Your task to perform on an android device: turn pop-ups off in chrome Image 0: 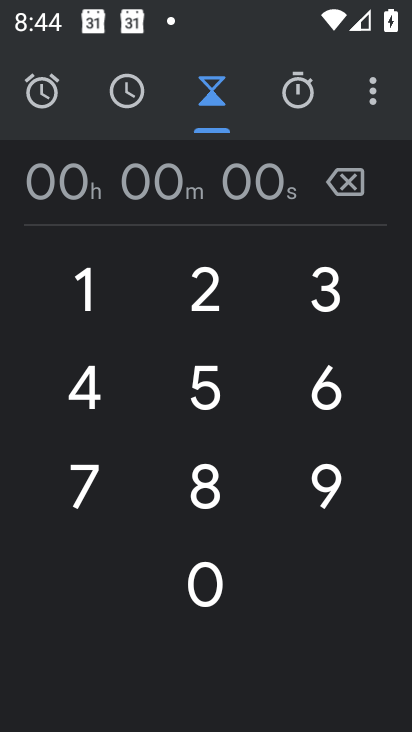
Step 0: press home button
Your task to perform on an android device: turn pop-ups off in chrome Image 1: 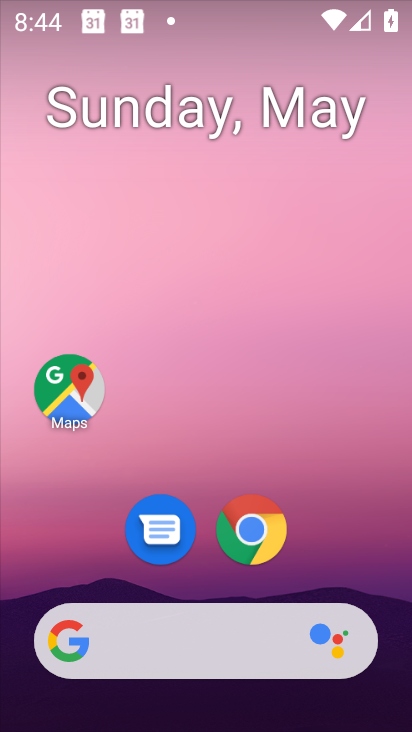
Step 1: click (276, 535)
Your task to perform on an android device: turn pop-ups off in chrome Image 2: 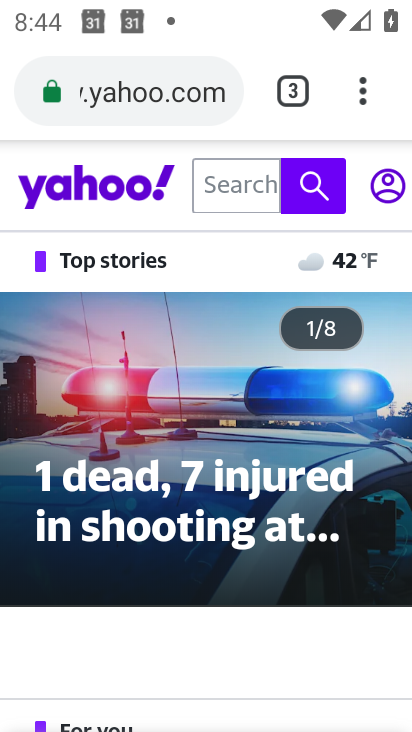
Step 2: click (360, 93)
Your task to perform on an android device: turn pop-ups off in chrome Image 3: 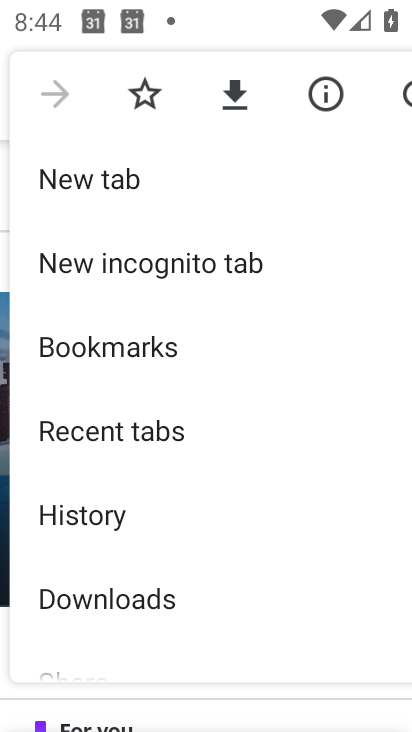
Step 3: drag from (223, 562) to (206, 240)
Your task to perform on an android device: turn pop-ups off in chrome Image 4: 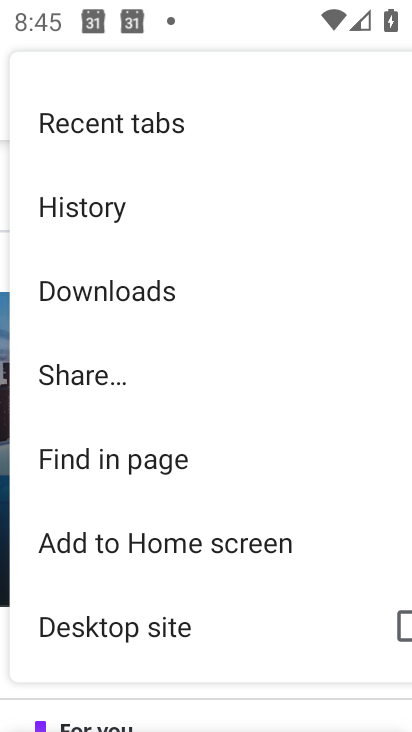
Step 4: drag from (222, 627) to (204, 198)
Your task to perform on an android device: turn pop-ups off in chrome Image 5: 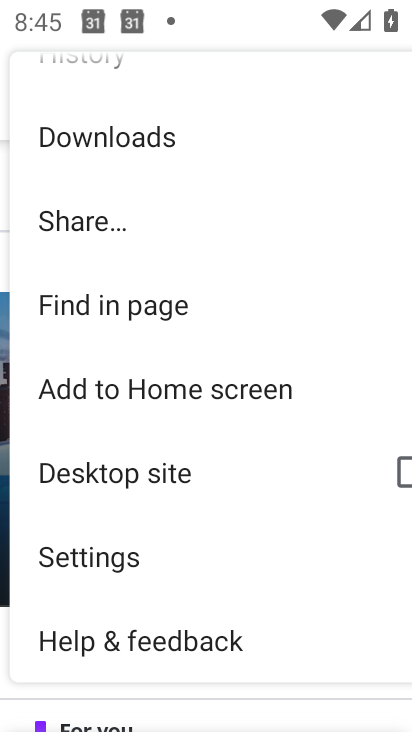
Step 5: click (148, 546)
Your task to perform on an android device: turn pop-ups off in chrome Image 6: 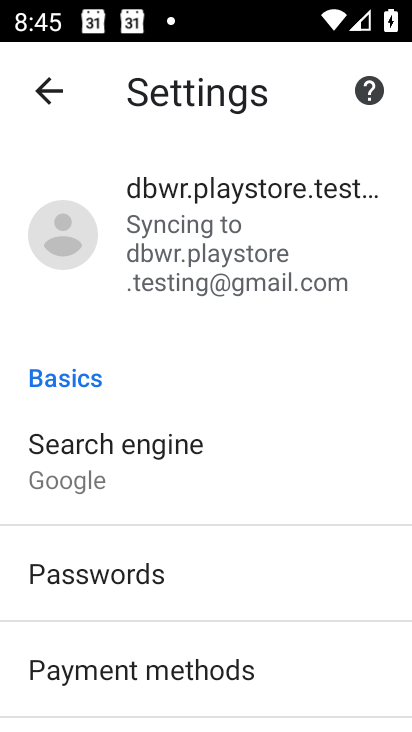
Step 6: drag from (218, 590) to (223, 119)
Your task to perform on an android device: turn pop-ups off in chrome Image 7: 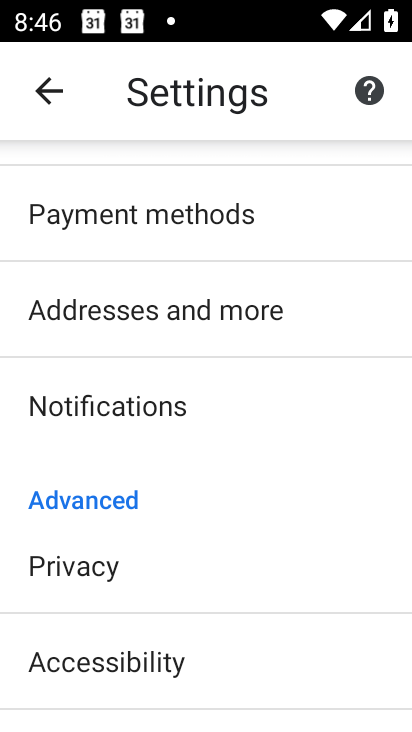
Step 7: drag from (219, 598) to (207, 119)
Your task to perform on an android device: turn pop-ups off in chrome Image 8: 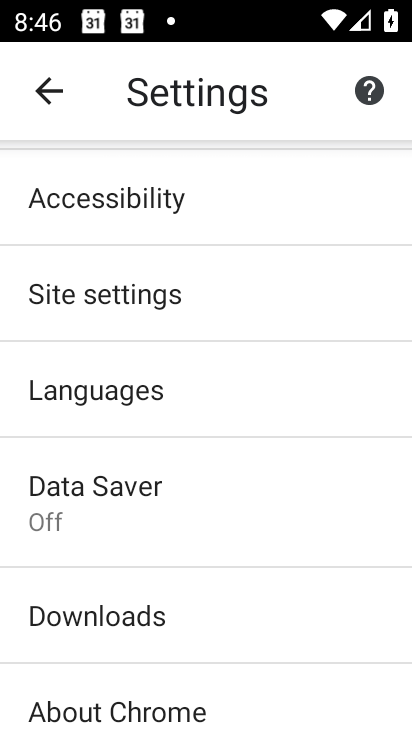
Step 8: click (184, 532)
Your task to perform on an android device: turn pop-ups off in chrome Image 9: 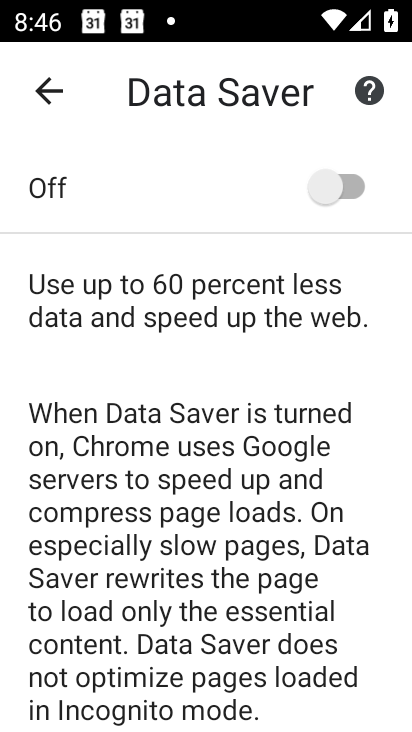
Step 9: click (356, 191)
Your task to perform on an android device: turn pop-ups off in chrome Image 10: 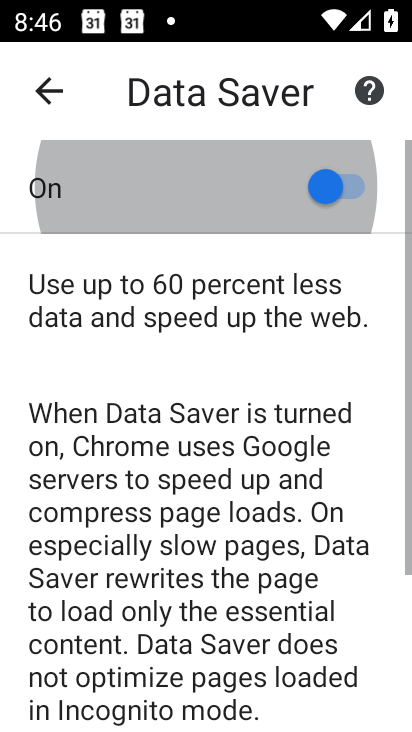
Step 10: click (356, 191)
Your task to perform on an android device: turn pop-ups off in chrome Image 11: 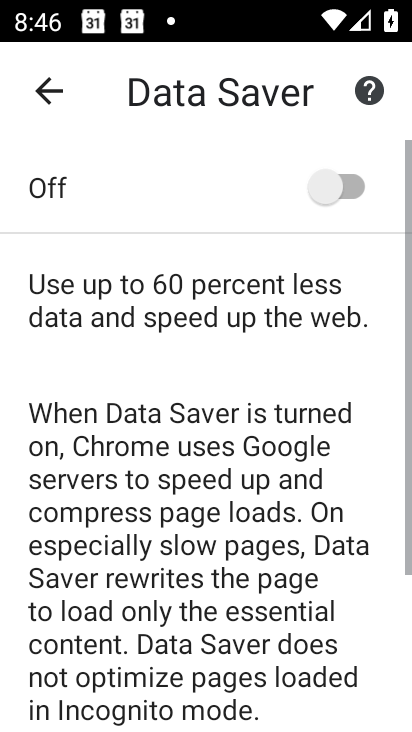
Step 11: task complete